Your task to perform on an android device: Open calendar and show me the first week of next month Image 0: 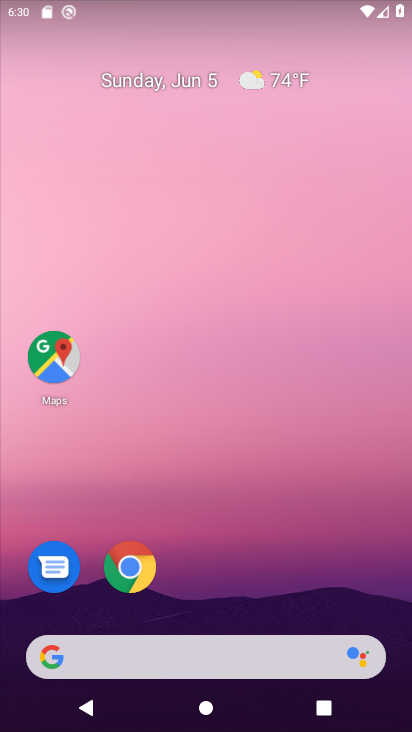
Step 0: drag from (390, 560) to (255, 10)
Your task to perform on an android device: Open calendar and show me the first week of next month Image 1: 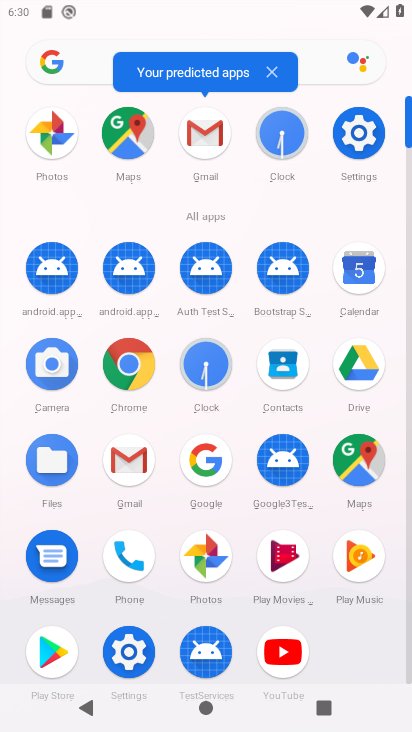
Step 1: click (345, 273)
Your task to perform on an android device: Open calendar and show me the first week of next month Image 2: 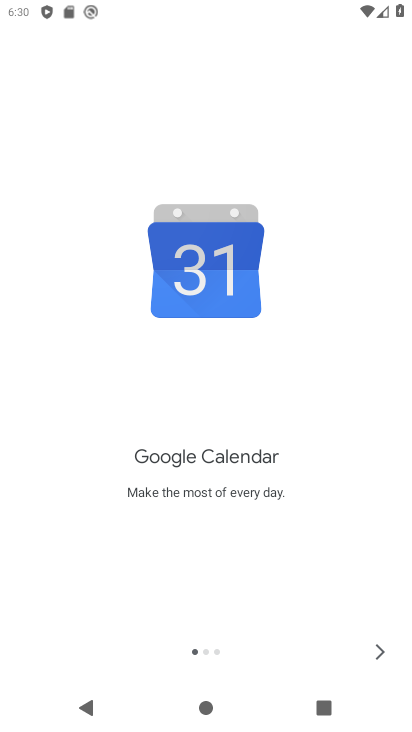
Step 2: click (374, 650)
Your task to perform on an android device: Open calendar and show me the first week of next month Image 3: 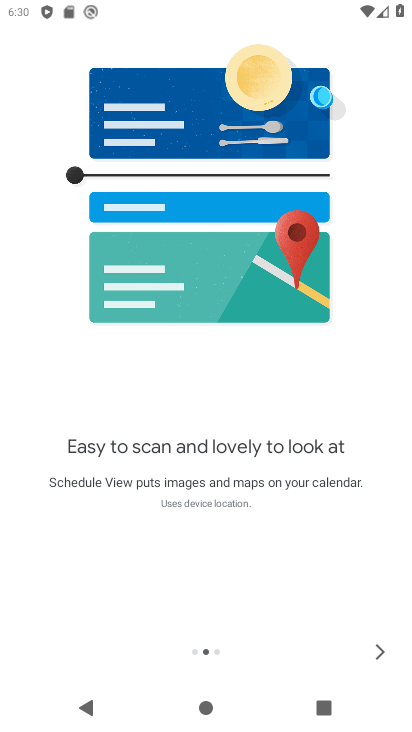
Step 3: click (374, 650)
Your task to perform on an android device: Open calendar and show me the first week of next month Image 4: 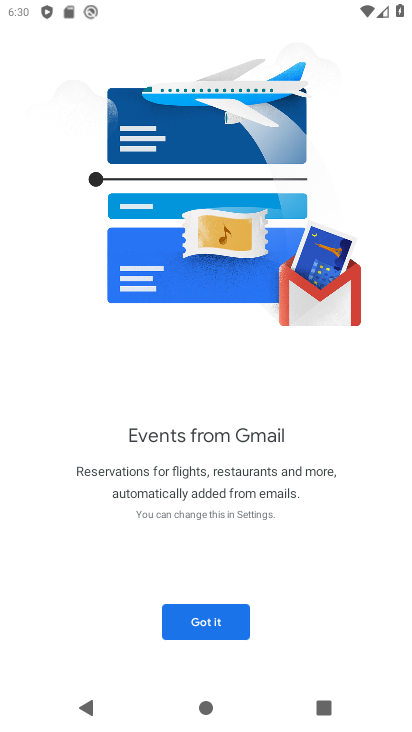
Step 4: click (197, 627)
Your task to perform on an android device: Open calendar and show me the first week of next month Image 5: 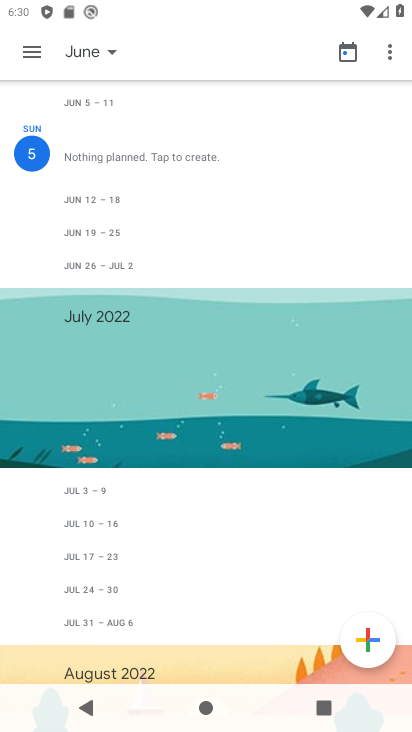
Step 5: click (74, 51)
Your task to perform on an android device: Open calendar and show me the first week of next month Image 6: 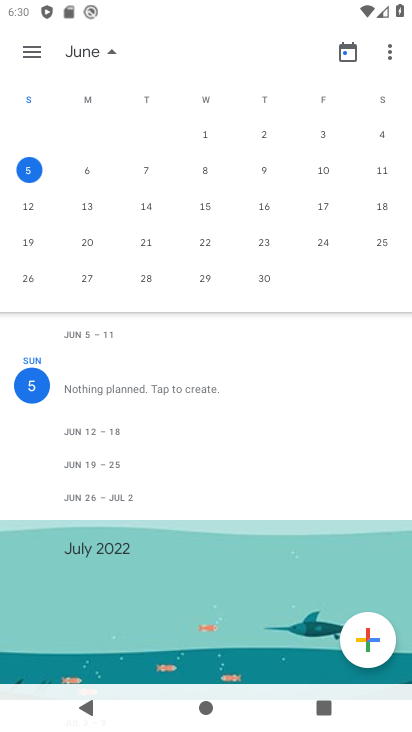
Step 6: drag from (361, 219) to (0, 189)
Your task to perform on an android device: Open calendar and show me the first week of next month Image 7: 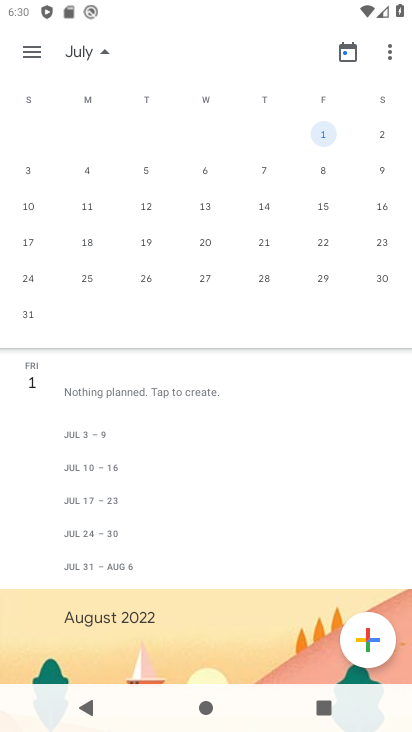
Step 7: click (89, 170)
Your task to perform on an android device: Open calendar and show me the first week of next month Image 8: 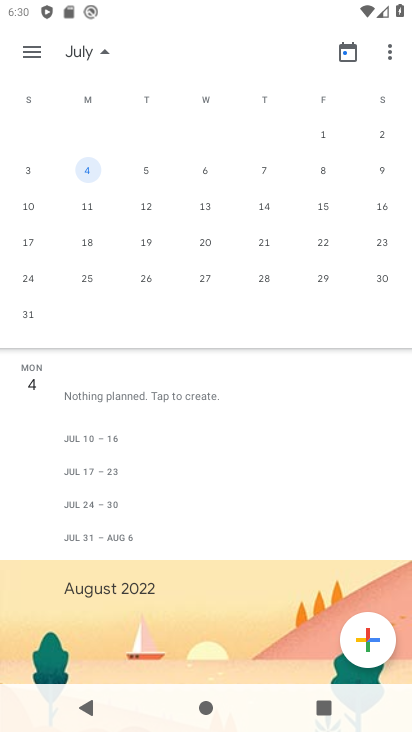
Step 8: task complete